Your task to perform on an android device: Open ESPN.com Image 0: 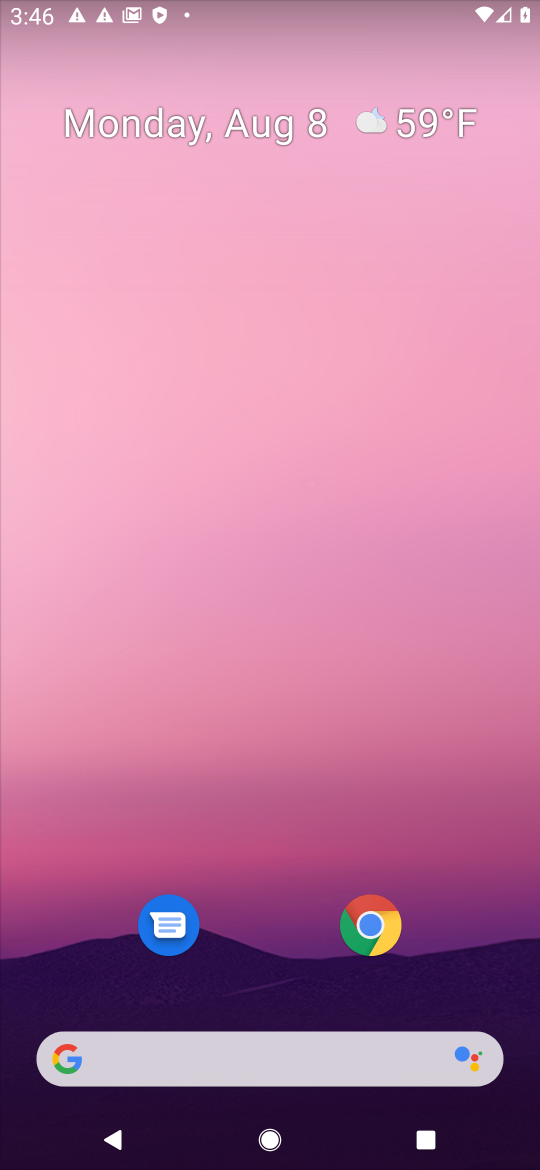
Step 0: click (369, 920)
Your task to perform on an android device: Open ESPN.com Image 1: 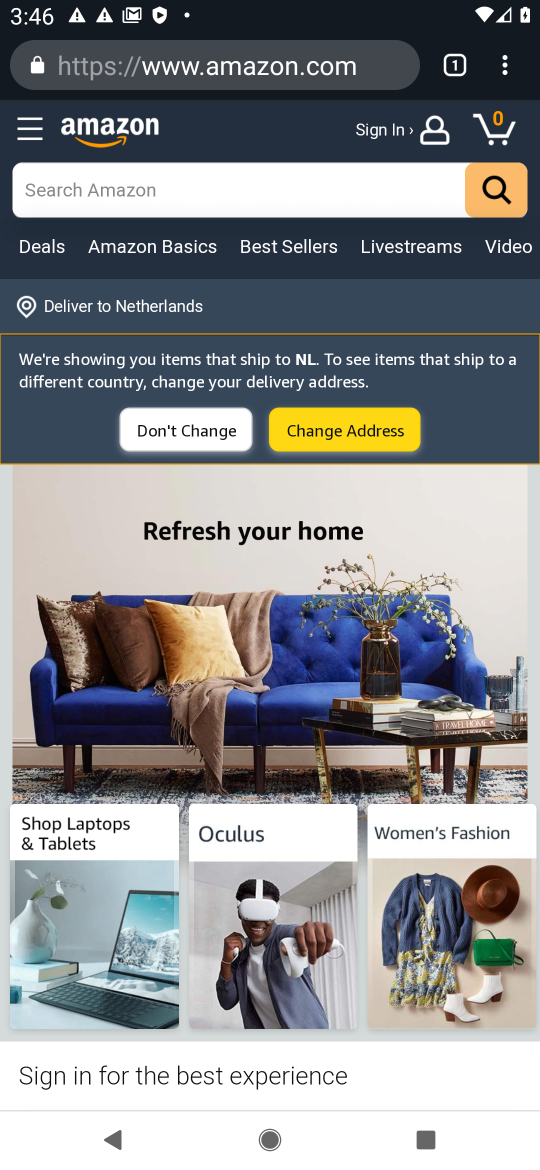
Step 1: drag from (506, 74) to (293, 133)
Your task to perform on an android device: Open ESPN.com Image 2: 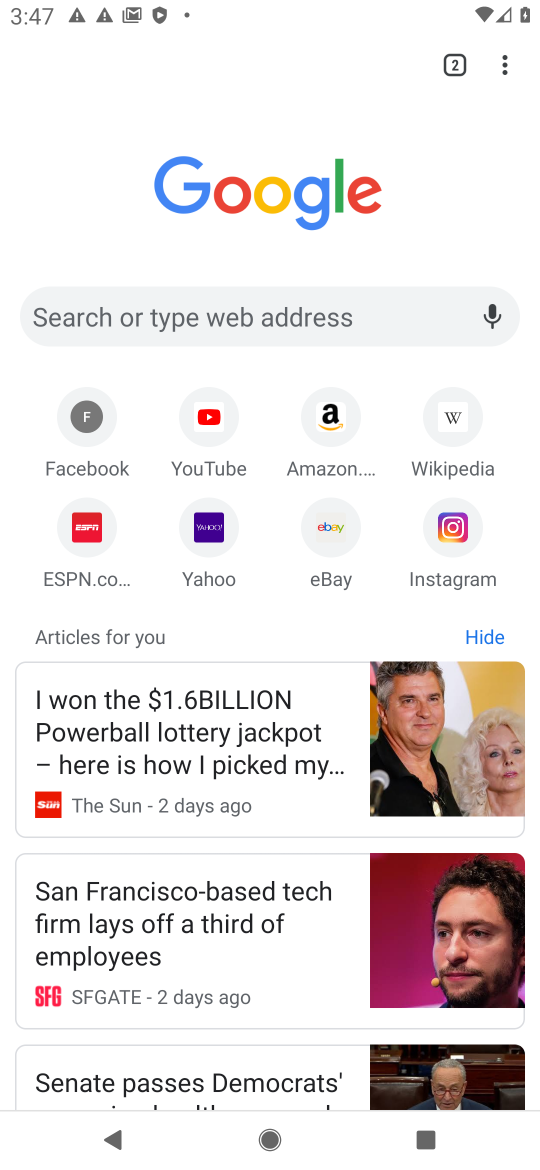
Step 2: click (83, 519)
Your task to perform on an android device: Open ESPN.com Image 3: 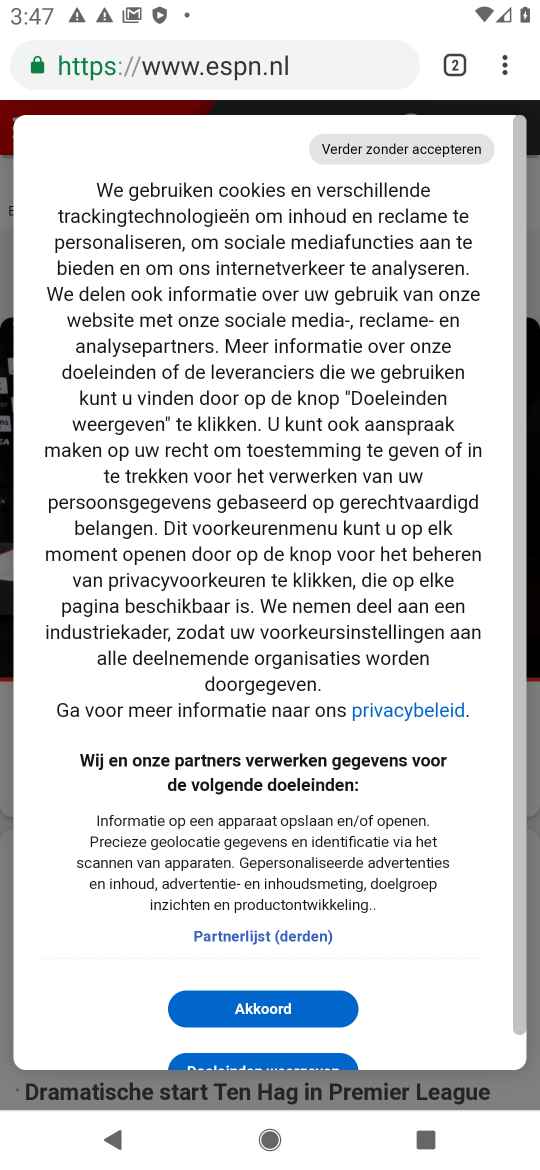
Step 3: click (269, 1011)
Your task to perform on an android device: Open ESPN.com Image 4: 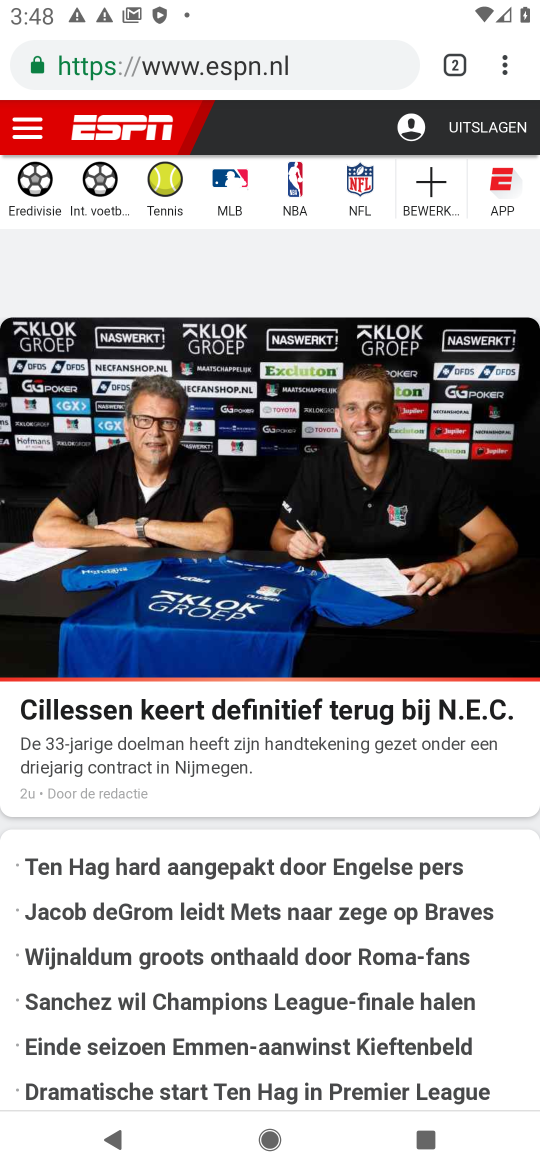
Step 4: task complete